Your task to perform on an android device: Open my contact list Image 0: 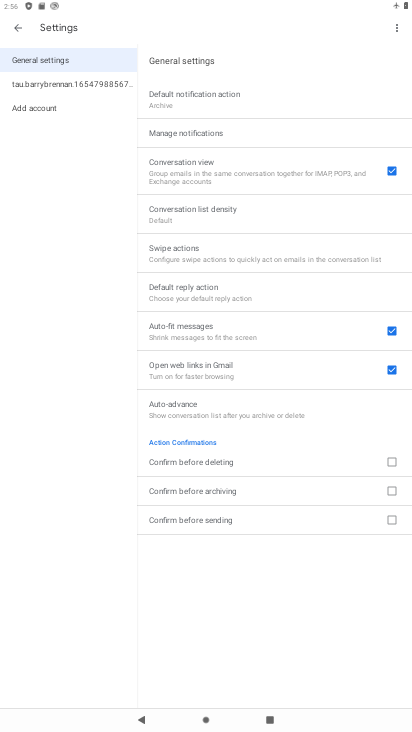
Step 0: press home button
Your task to perform on an android device: Open my contact list Image 1: 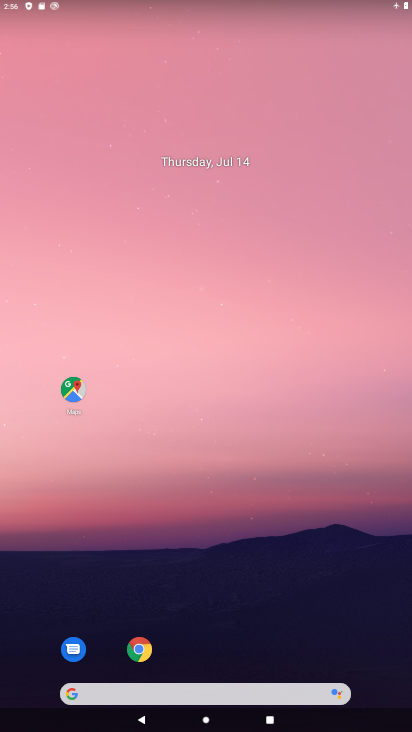
Step 1: drag from (219, 600) to (272, 159)
Your task to perform on an android device: Open my contact list Image 2: 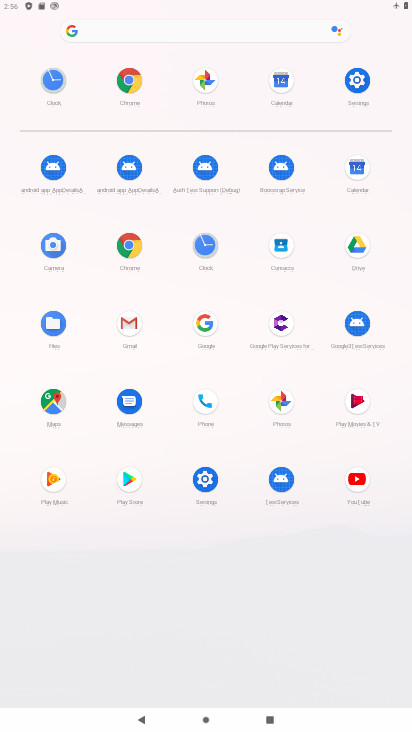
Step 2: click (282, 254)
Your task to perform on an android device: Open my contact list Image 3: 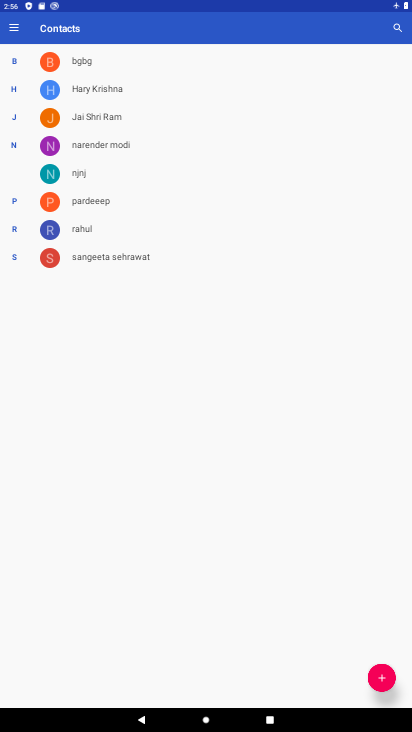
Step 3: task complete